Your task to perform on an android device: Open privacy settings Image 0: 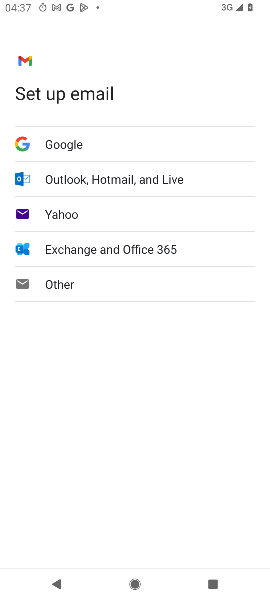
Step 0: press home button
Your task to perform on an android device: Open privacy settings Image 1: 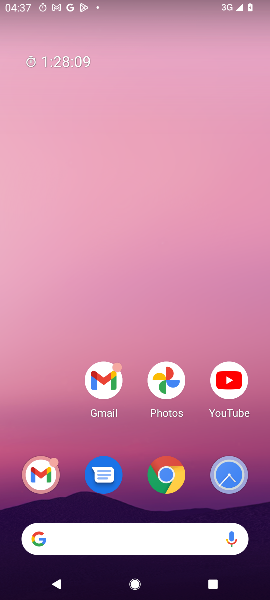
Step 1: drag from (46, 418) to (59, 155)
Your task to perform on an android device: Open privacy settings Image 2: 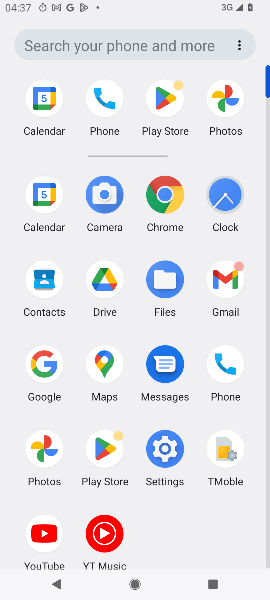
Step 2: click (162, 452)
Your task to perform on an android device: Open privacy settings Image 3: 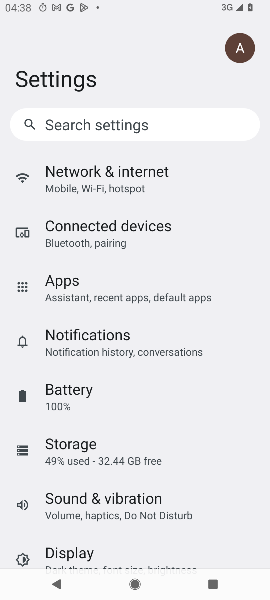
Step 3: drag from (232, 421) to (238, 338)
Your task to perform on an android device: Open privacy settings Image 4: 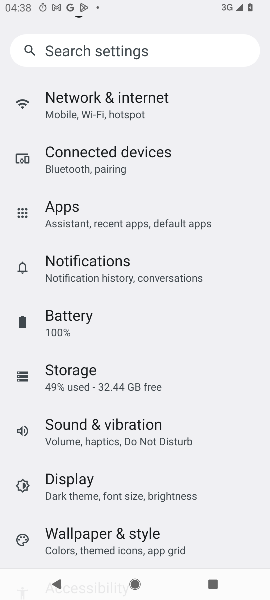
Step 4: drag from (224, 444) to (222, 369)
Your task to perform on an android device: Open privacy settings Image 5: 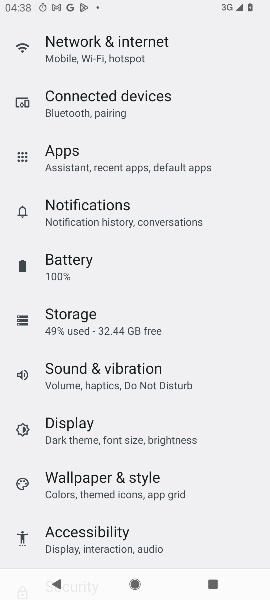
Step 5: drag from (227, 464) to (231, 352)
Your task to perform on an android device: Open privacy settings Image 6: 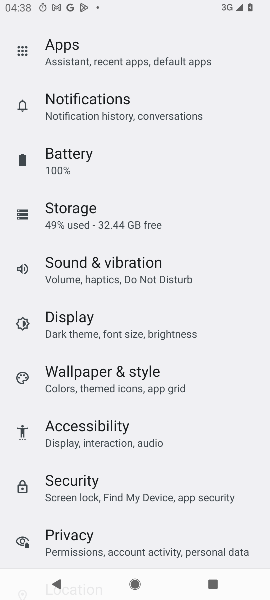
Step 6: drag from (219, 467) to (217, 354)
Your task to perform on an android device: Open privacy settings Image 7: 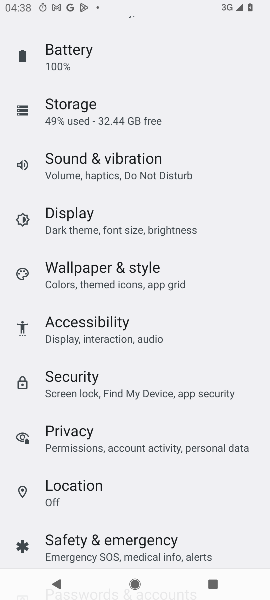
Step 7: drag from (213, 465) to (219, 373)
Your task to perform on an android device: Open privacy settings Image 8: 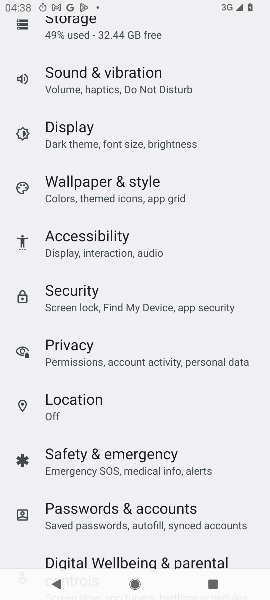
Step 8: drag from (228, 471) to (230, 399)
Your task to perform on an android device: Open privacy settings Image 9: 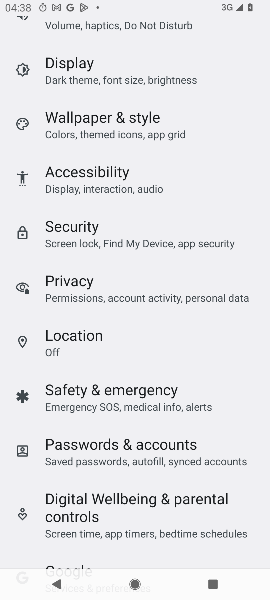
Step 9: click (216, 289)
Your task to perform on an android device: Open privacy settings Image 10: 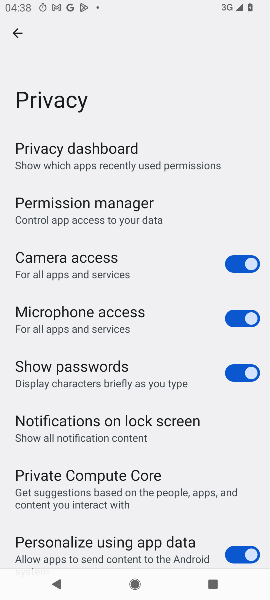
Step 10: task complete